Your task to perform on an android device: change notification settings in the gmail app Image 0: 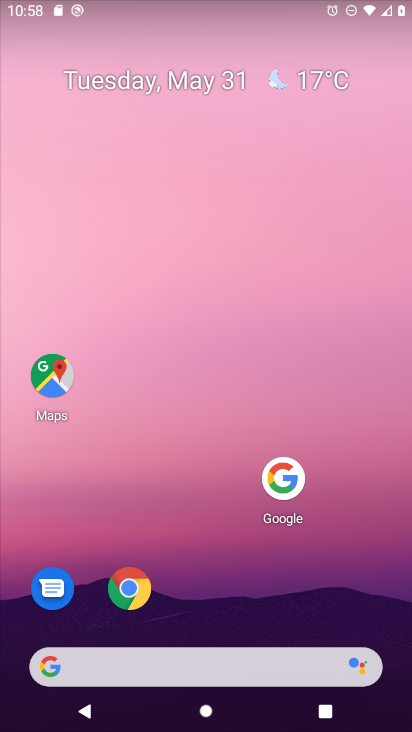
Step 0: drag from (174, 658) to (283, 206)
Your task to perform on an android device: change notification settings in the gmail app Image 1: 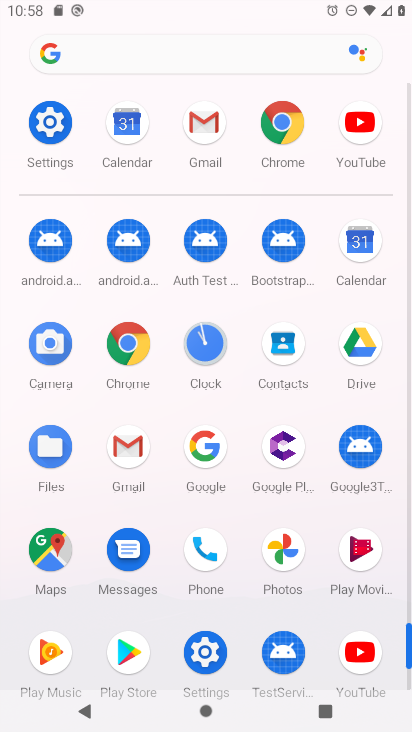
Step 1: click (203, 128)
Your task to perform on an android device: change notification settings in the gmail app Image 2: 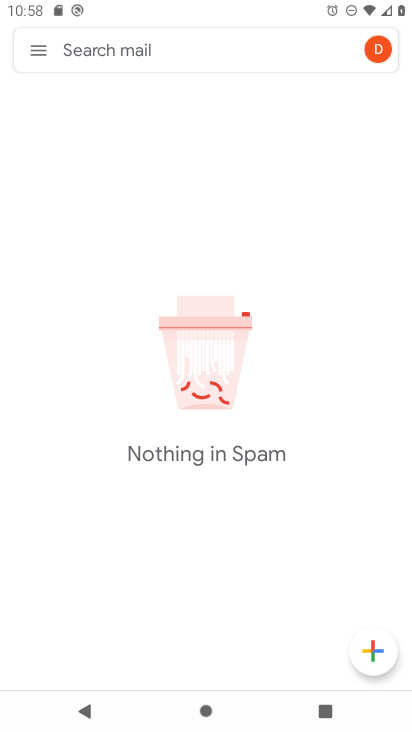
Step 2: click (38, 49)
Your task to perform on an android device: change notification settings in the gmail app Image 3: 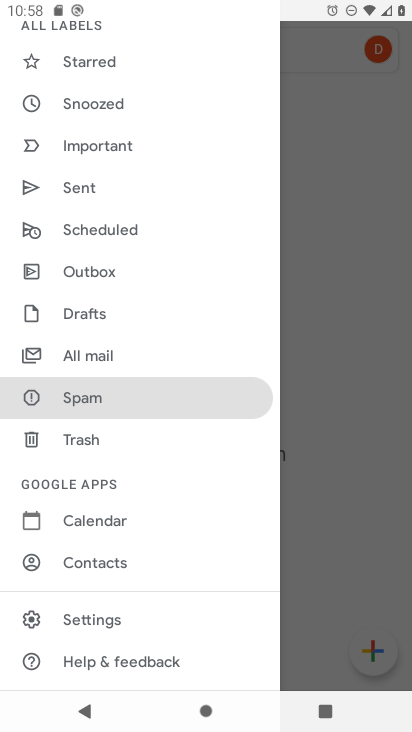
Step 3: click (110, 614)
Your task to perform on an android device: change notification settings in the gmail app Image 4: 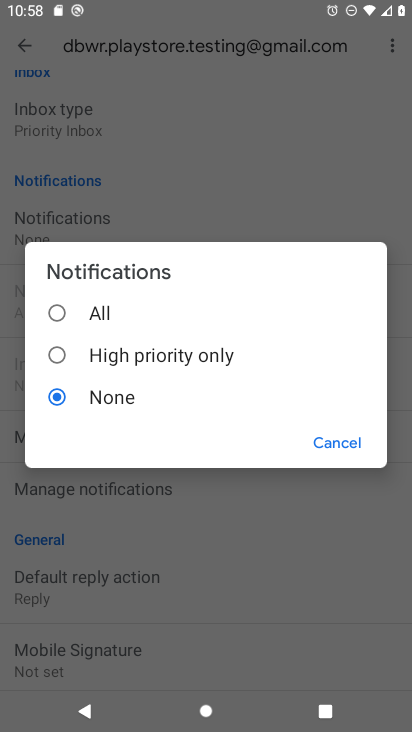
Step 4: click (58, 310)
Your task to perform on an android device: change notification settings in the gmail app Image 5: 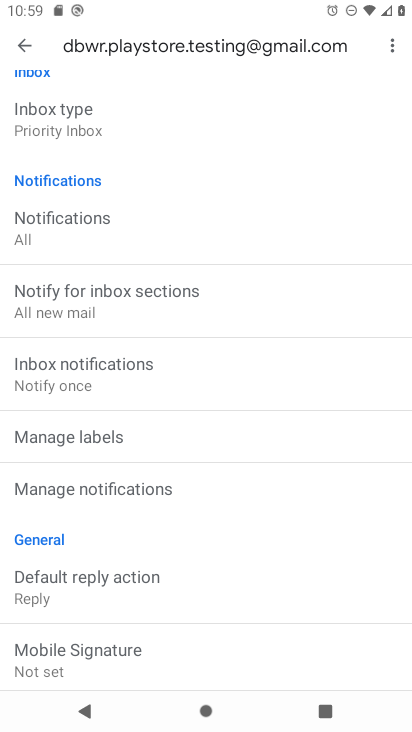
Step 5: task complete